Your task to perform on an android device: Search for a tv stand on Ikea Image 0: 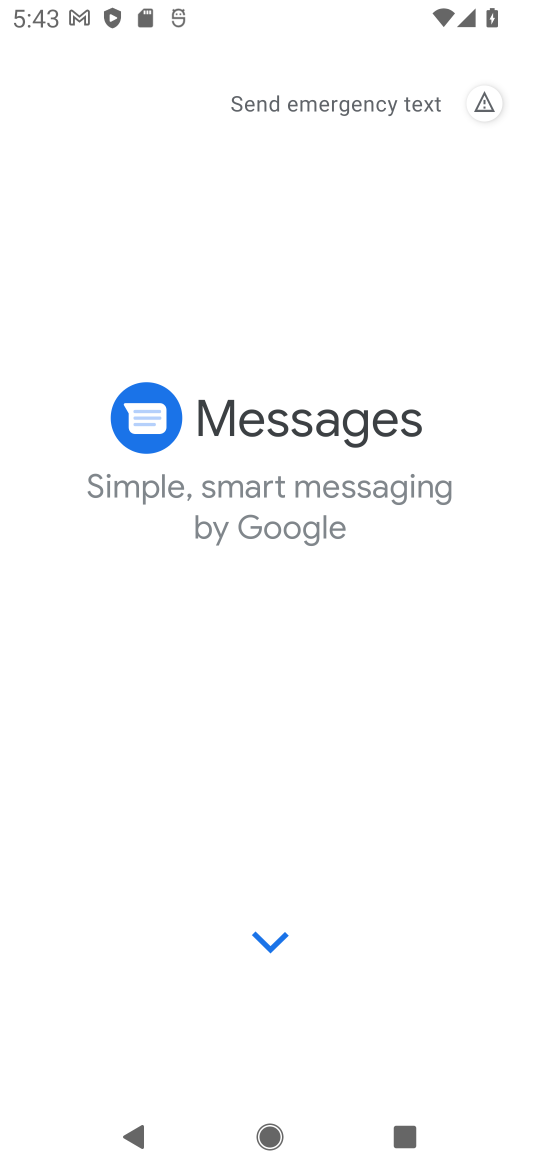
Step 0: press home button
Your task to perform on an android device: Search for a tv stand on Ikea Image 1: 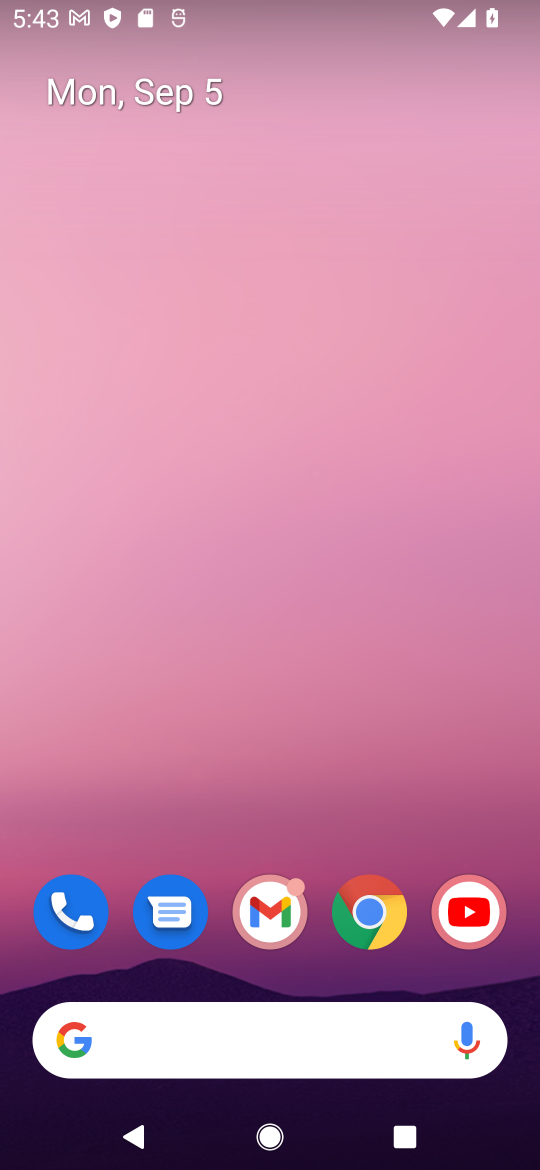
Step 1: click (346, 930)
Your task to perform on an android device: Search for a tv stand on Ikea Image 2: 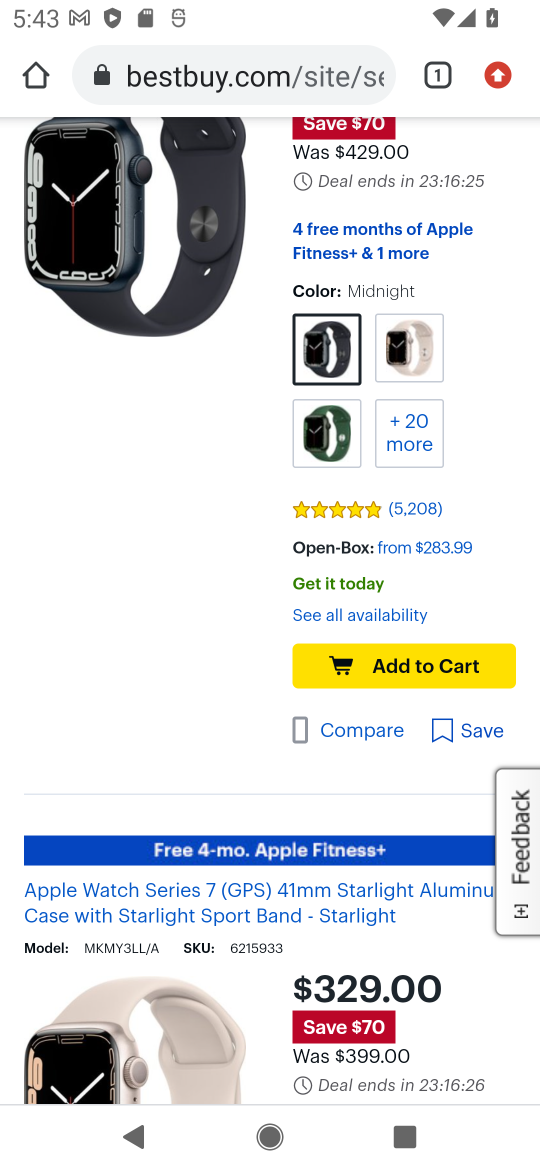
Step 2: click (257, 75)
Your task to perform on an android device: Search for a tv stand on Ikea Image 3: 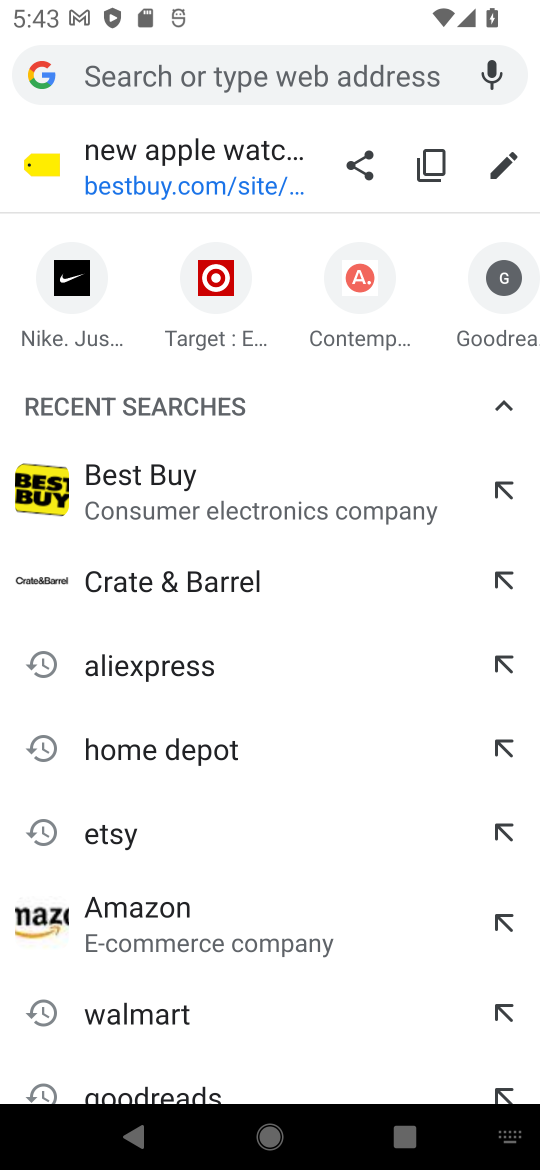
Step 3: type "ikea"
Your task to perform on an android device: Search for a tv stand on Ikea Image 4: 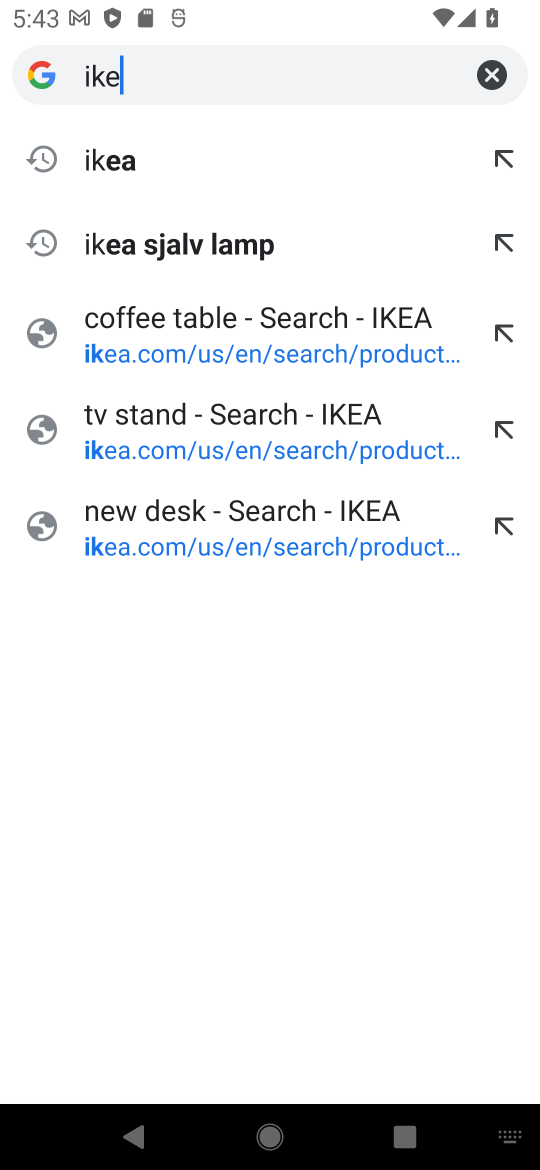
Step 4: press enter
Your task to perform on an android device: Search for a tv stand on Ikea Image 5: 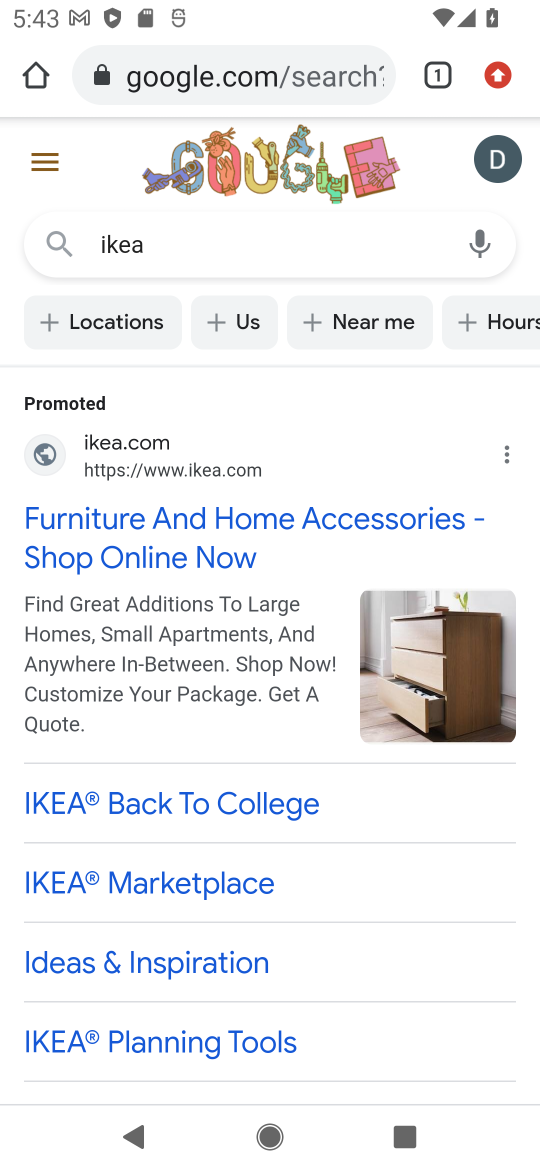
Step 5: click (208, 543)
Your task to perform on an android device: Search for a tv stand on Ikea Image 6: 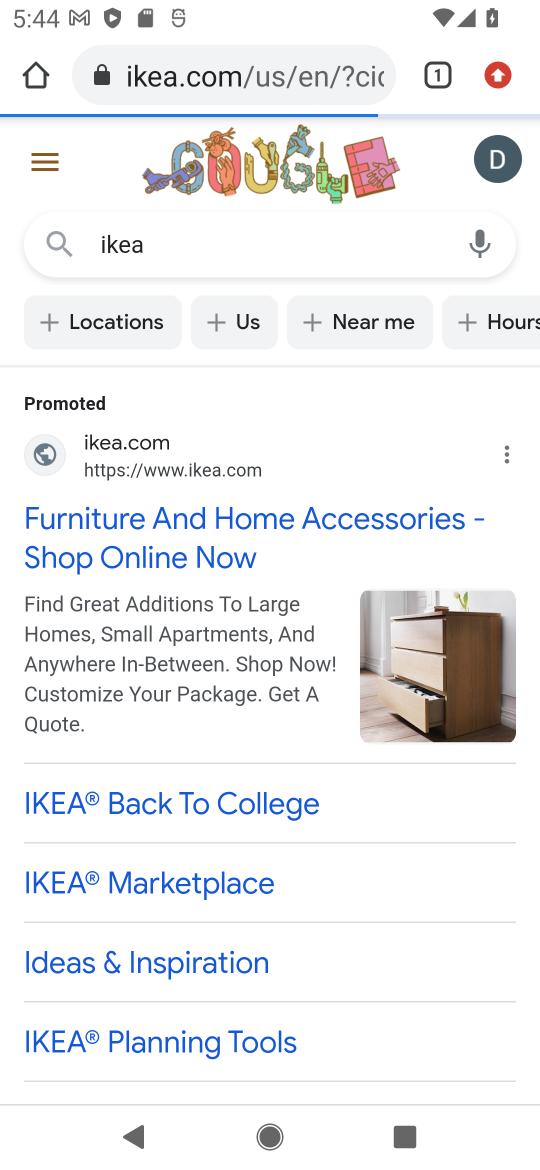
Step 6: click (157, 549)
Your task to perform on an android device: Search for a tv stand on Ikea Image 7: 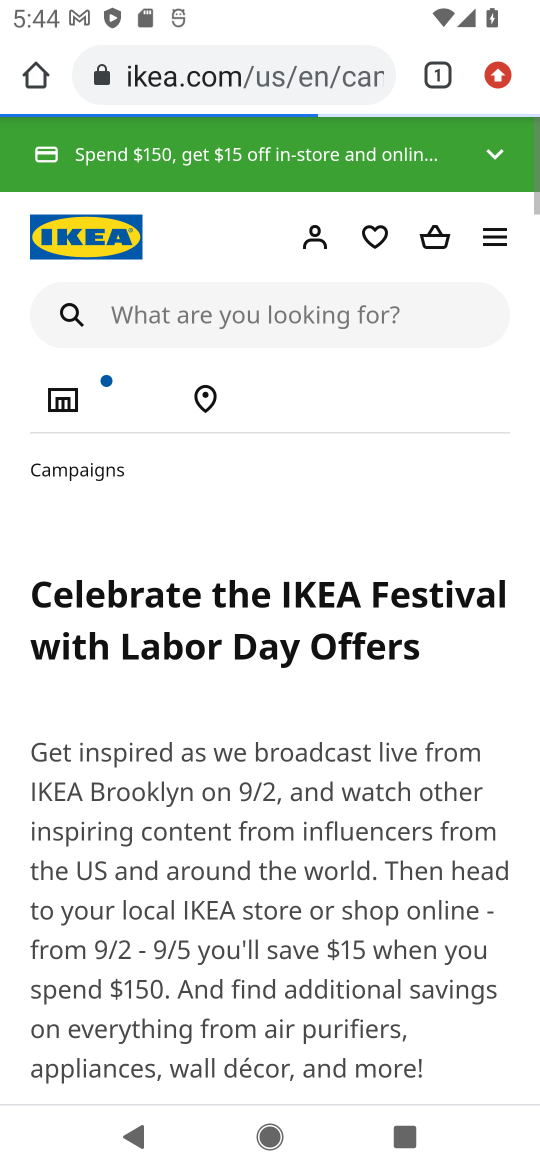
Step 7: click (204, 307)
Your task to perform on an android device: Search for a tv stand on Ikea Image 8: 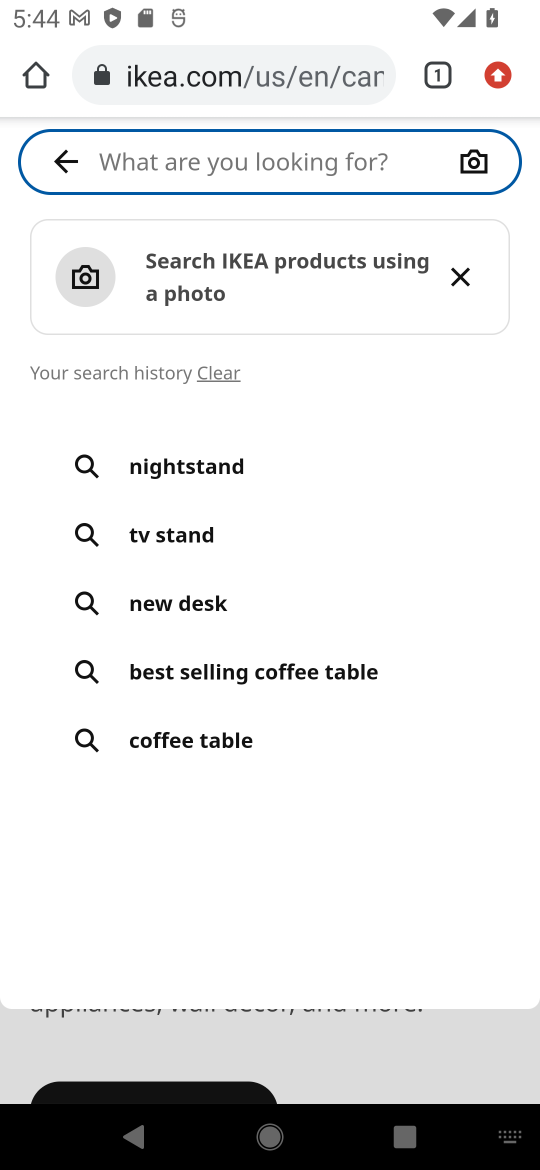
Step 8: type "tv stand"
Your task to perform on an android device: Search for a tv stand on Ikea Image 9: 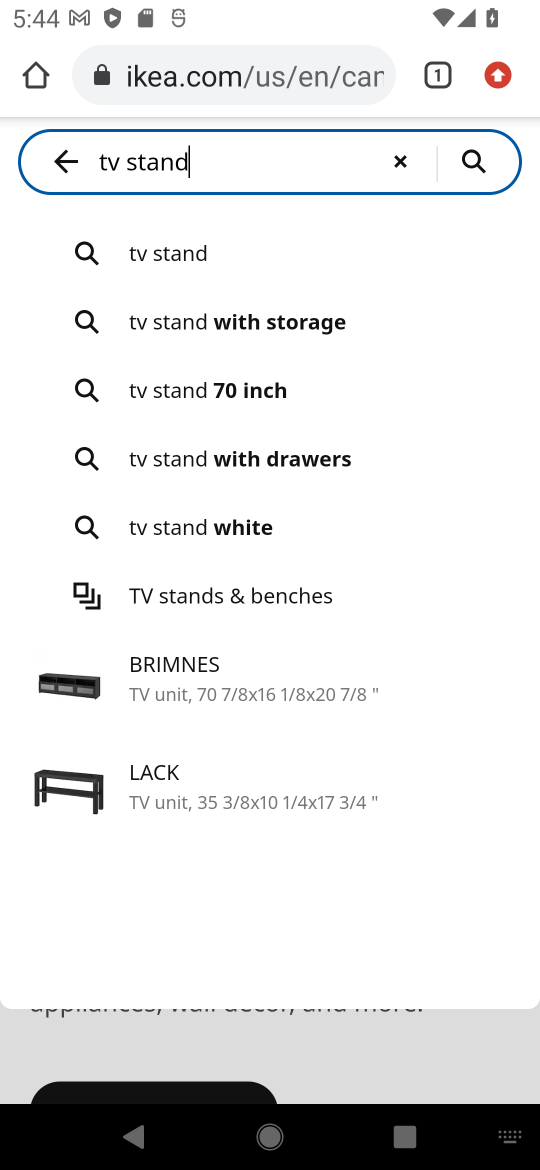
Step 9: press enter
Your task to perform on an android device: Search for a tv stand on Ikea Image 10: 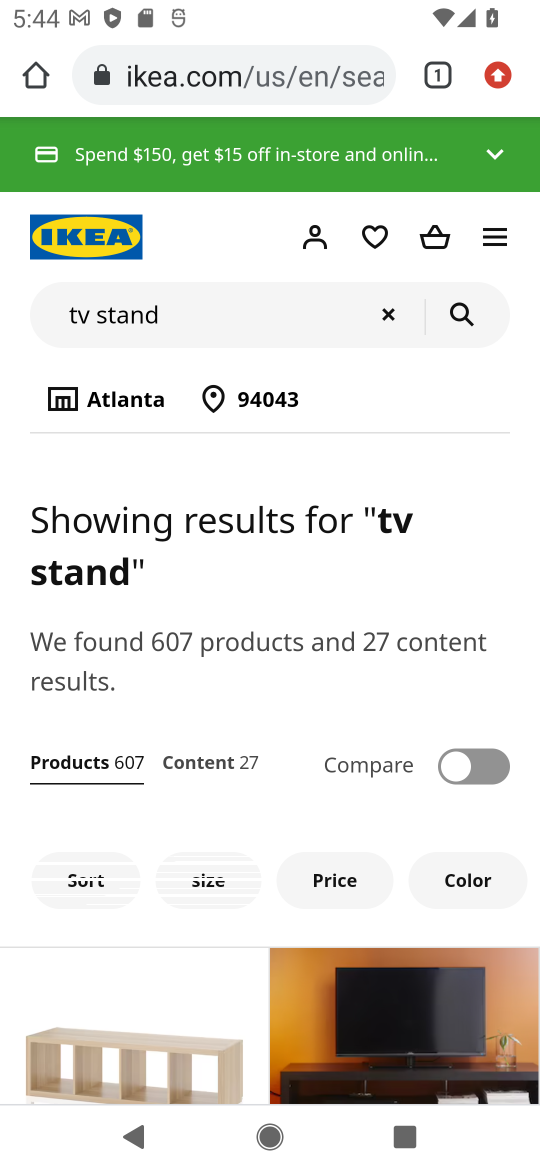
Step 10: drag from (211, 949) to (189, 527)
Your task to perform on an android device: Search for a tv stand on Ikea Image 11: 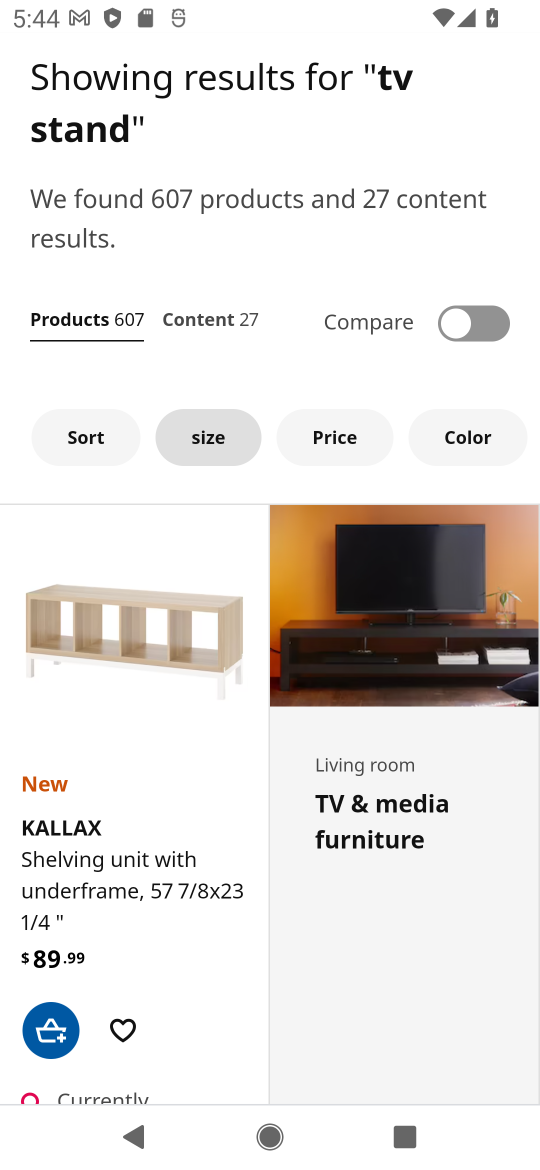
Step 11: drag from (116, 950) to (117, 493)
Your task to perform on an android device: Search for a tv stand on Ikea Image 12: 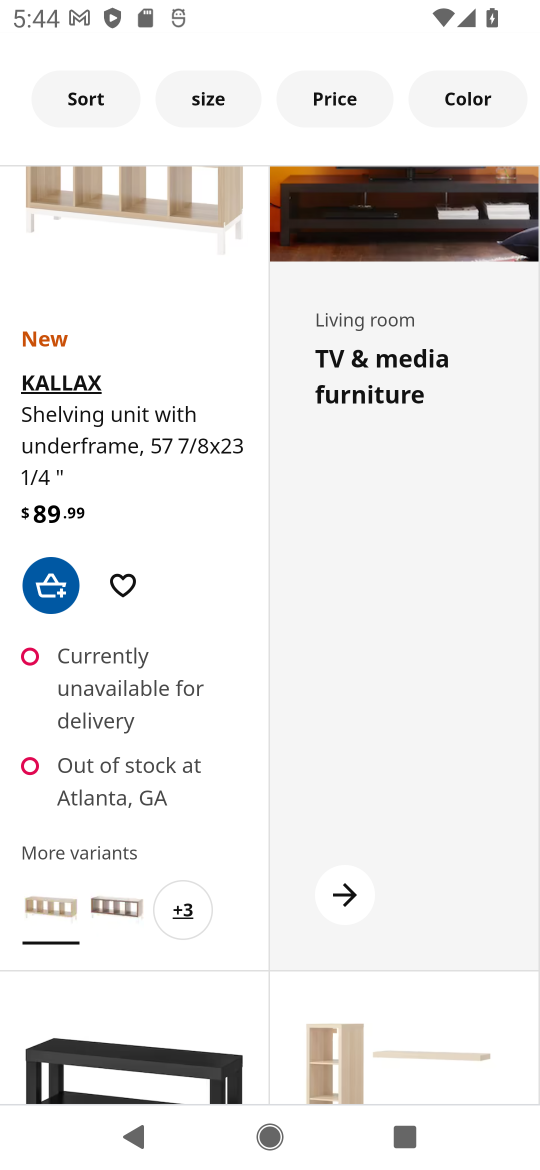
Step 12: press enter
Your task to perform on an android device: Search for a tv stand on Ikea Image 13: 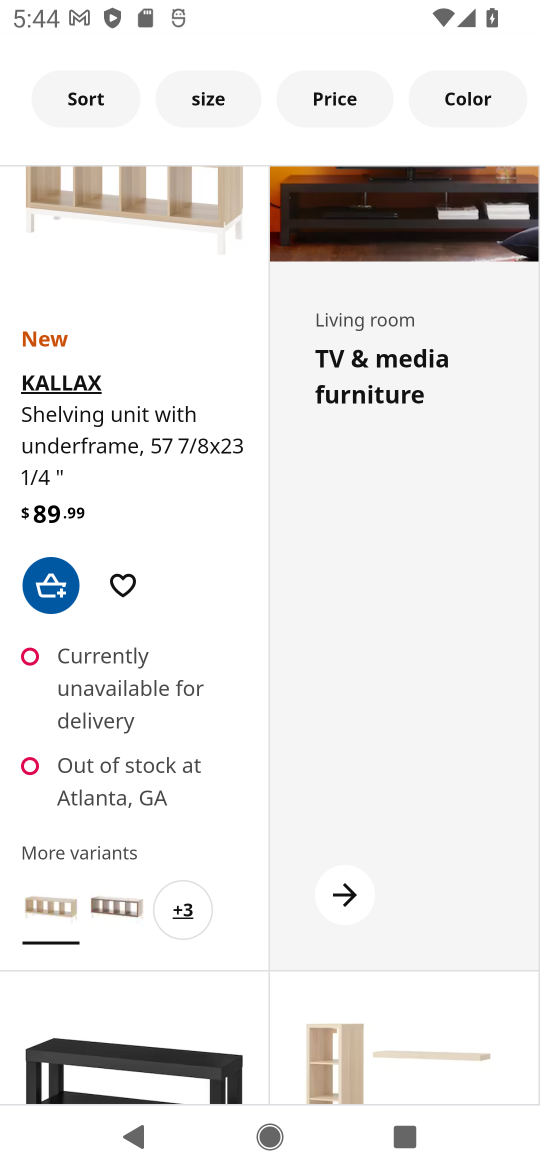
Step 13: task complete